Your task to perform on an android device: Open notification settings Image 0: 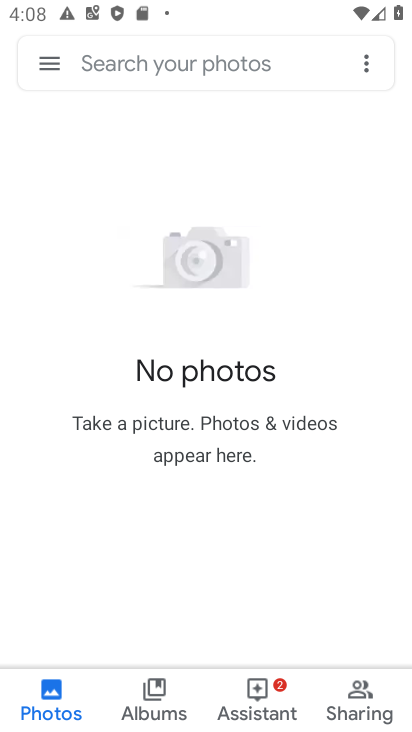
Step 0: press home button
Your task to perform on an android device: Open notification settings Image 1: 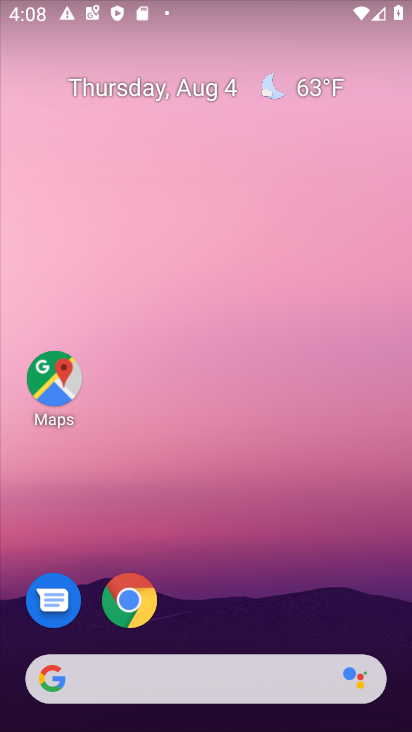
Step 1: drag from (275, 543) to (116, 718)
Your task to perform on an android device: Open notification settings Image 2: 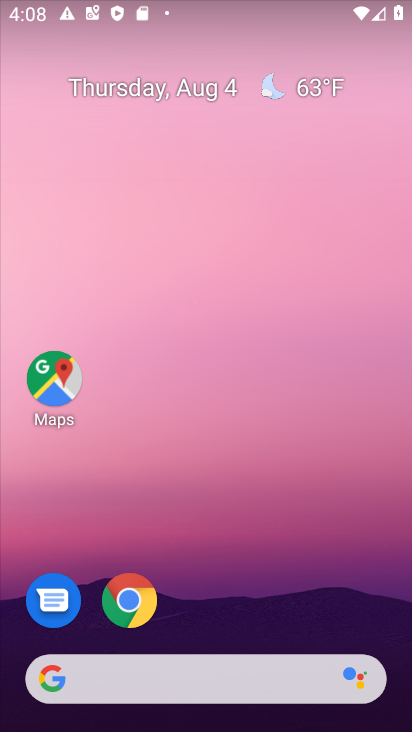
Step 2: drag from (283, 614) to (227, 78)
Your task to perform on an android device: Open notification settings Image 3: 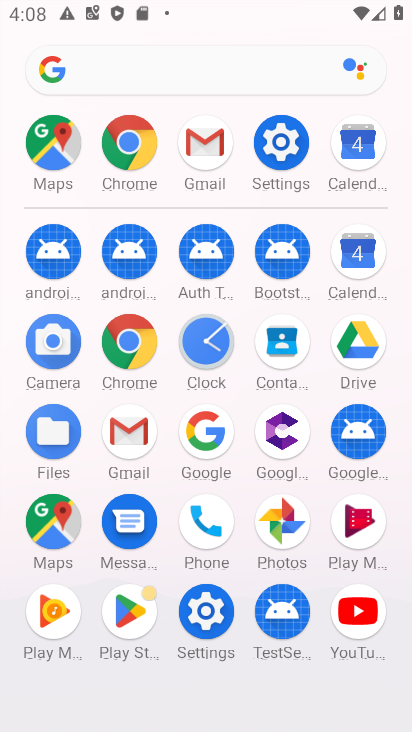
Step 3: click (287, 141)
Your task to perform on an android device: Open notification settings Image 4: 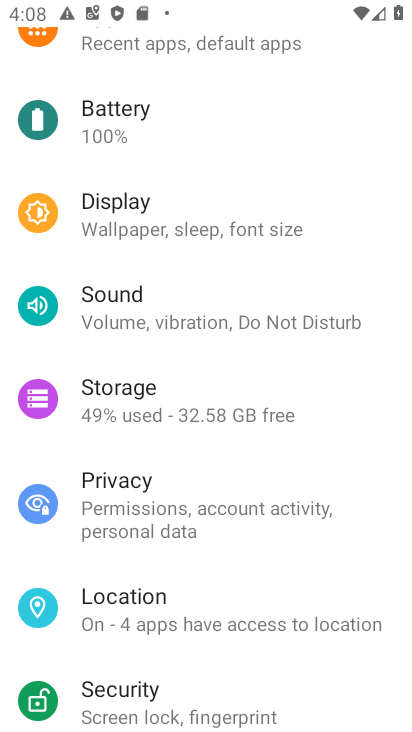
Step 4: drag from (287, 141) to (244, 536)
Your task to perform on an android device: Open notification settings Image 5: 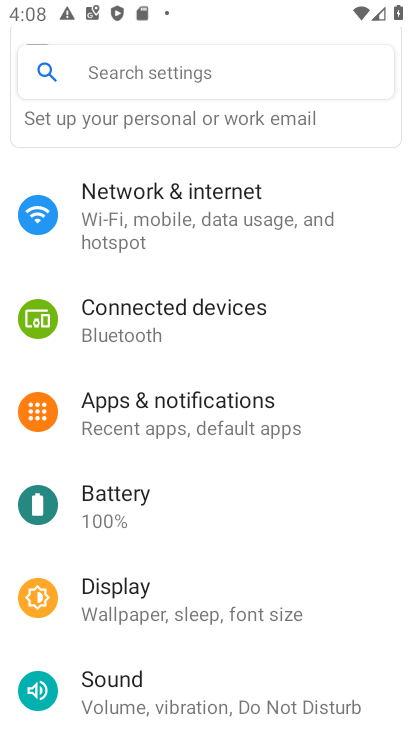
Step 5: click (159, 408)
Your task to perform on an android device: Open notification settings Image 6: 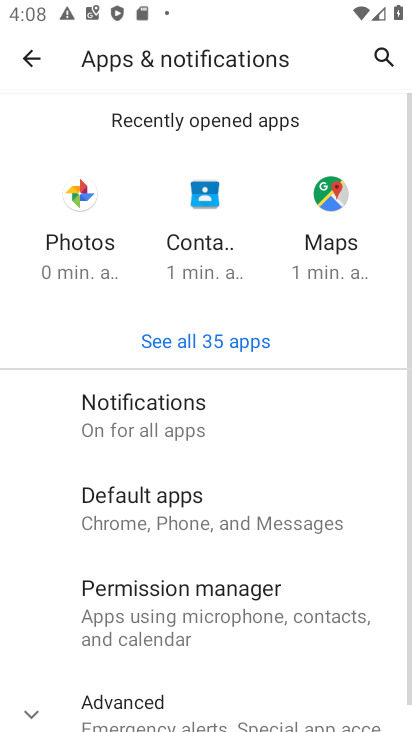
Step 6: click (159, 408)
Your task to perform on an android device: Open notification settings Image 7: 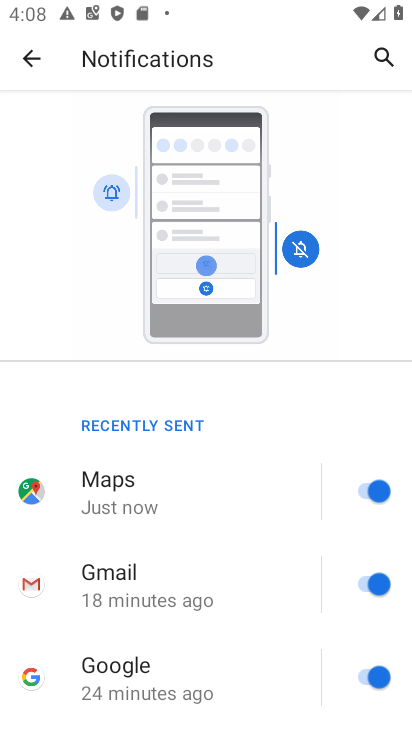
Step 7: task complete